Your task to perform on an android device: Go to Google Image 0: 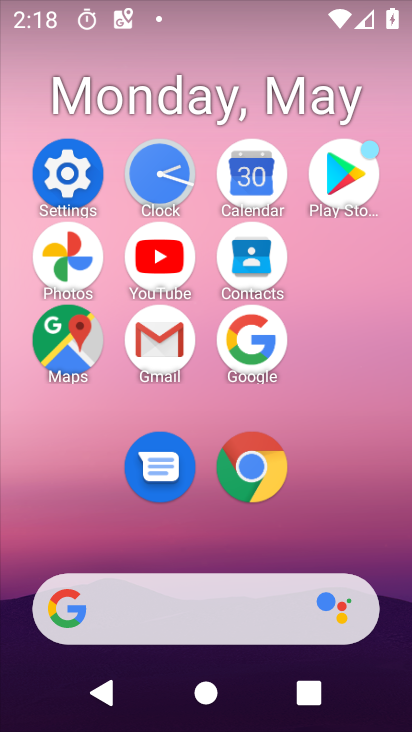
Step 0: click (264, 347)
Your task to perform on an android device: Go to Google Image 1: 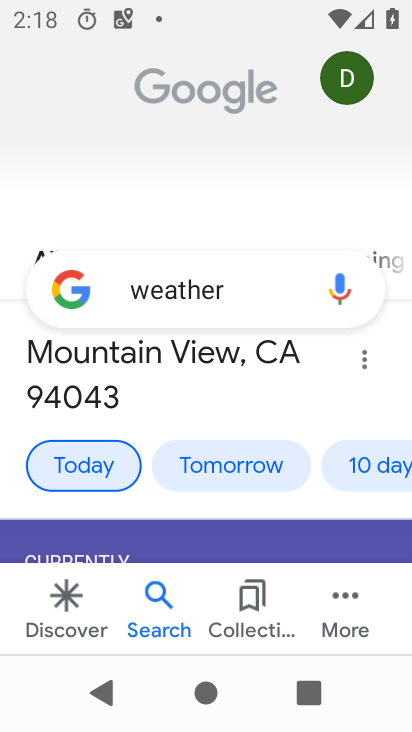
Step 1: task complete